Your task to perform on an android device: What's the weather going to be tomorrow? Image 0: 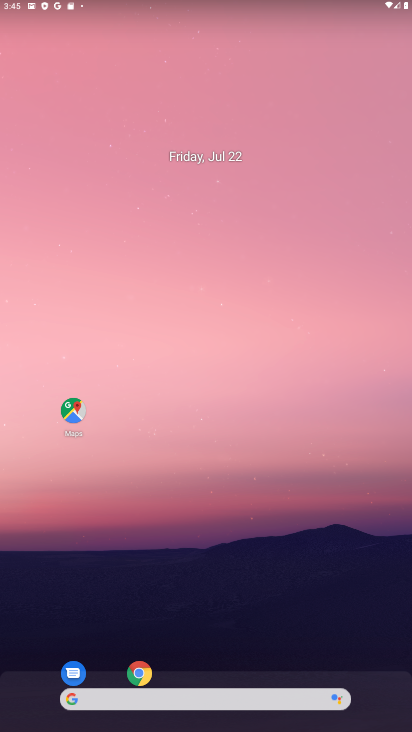
Step 0: click (159, 705)
Your task to perform on an android device: What's the weather going to be tomorrow? Image 1: 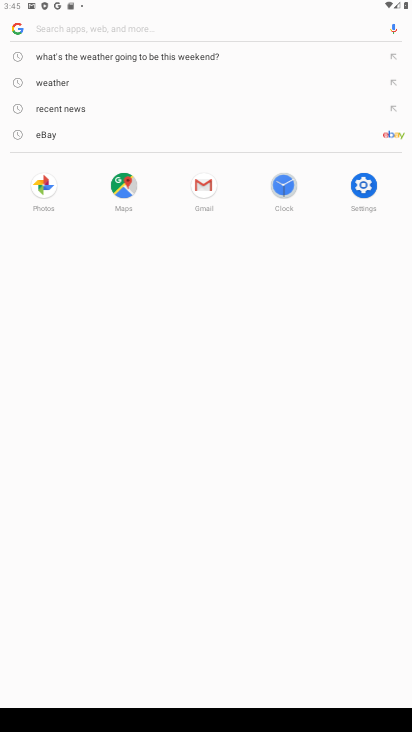
Step 1: type "what's the weather going to be tomorrow"
Your task to perform on an android device: What's the weather going to be tomorrow? Image 2: 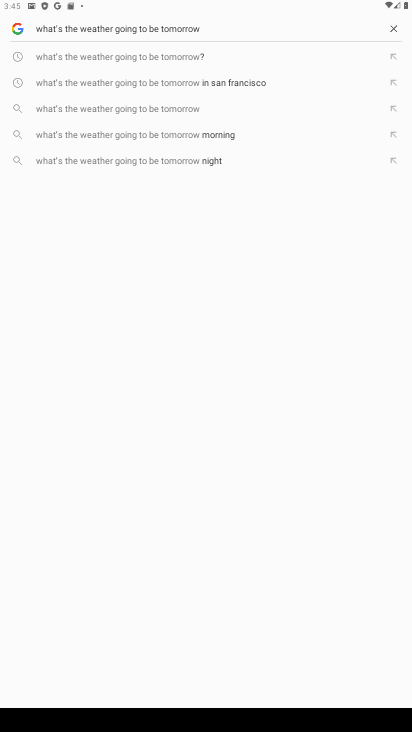
Step 2: click (232, 49)
Your task to perform on an android device: What's the weather going to be tomorrow? Image 3: 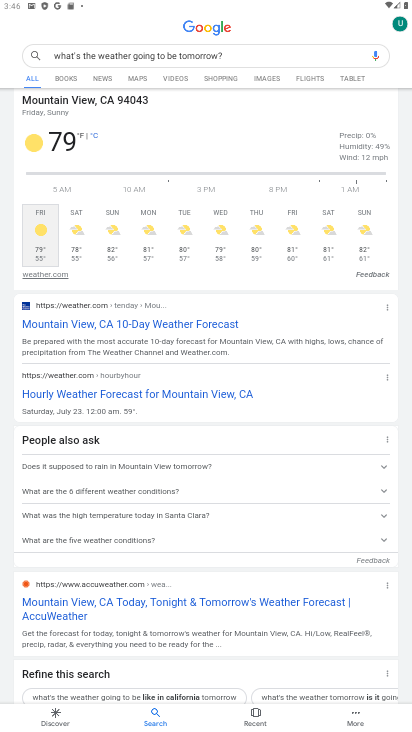
Step 3: task complete